Your task to perform on an android device: Go to CNN.com Image 0: 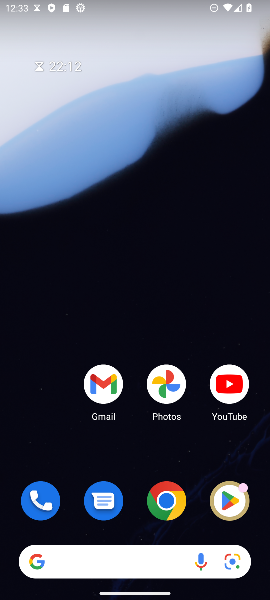
Step 0: click (174, 517)
Your task to perform on an android device: Go to CNN.com Image 1: 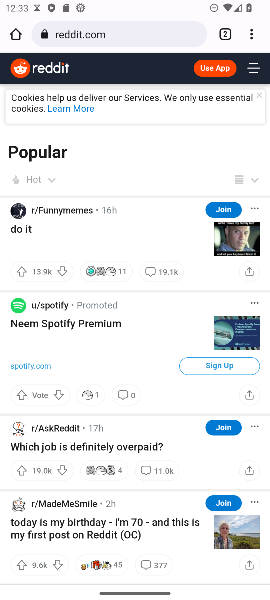
Step 1: click (92, 31)
Your task to perform on an android device: Go to CNN.com Image 2: 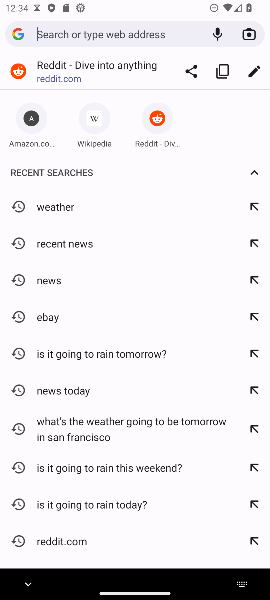
Step 2: type "www.cnn.com"
Your task to perform on an android device: Go to CNN.com Image 3: 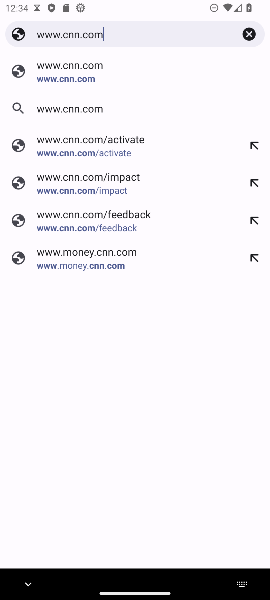
Step 3: click (71, 76)
Your task to perform on an android device: Go to CNN.com Image 4: 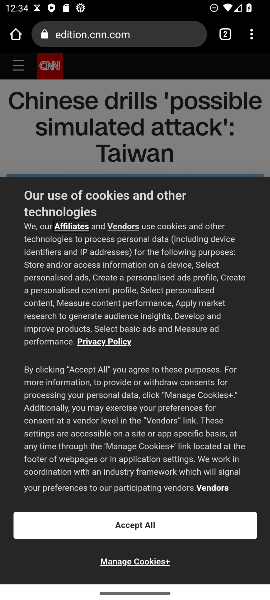
Step 4: task complete